Your task to perform on an android device: change the clock display to digital Image 0: 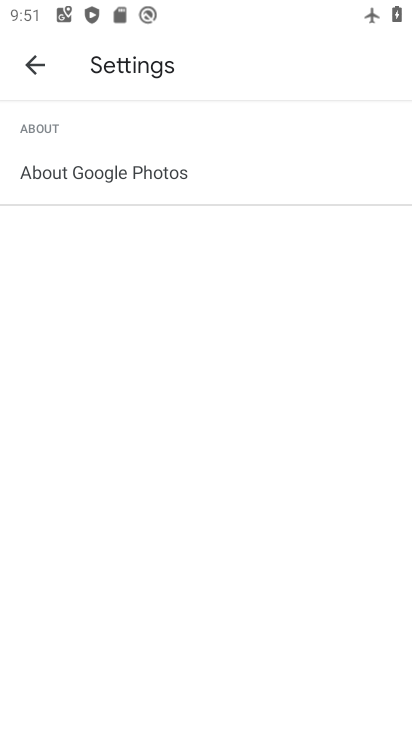
Step 0: press home button
Your task to perform on an android device: change the clock display to digital Image 1: 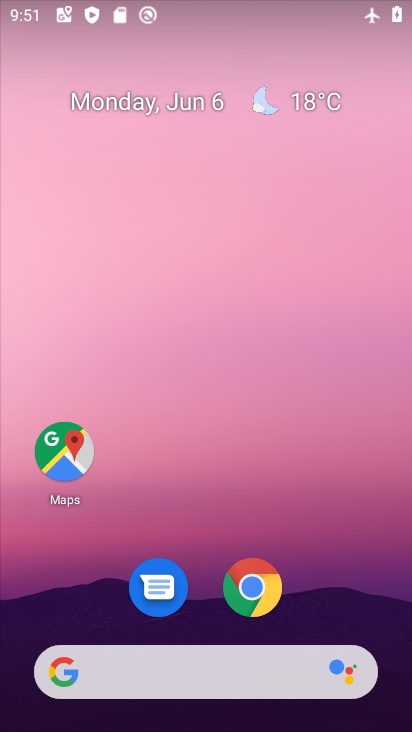
Step 1: drag from (331, 558) to (215, 60)
Your task to perform on an android device: change the clock display to digital Image 2: 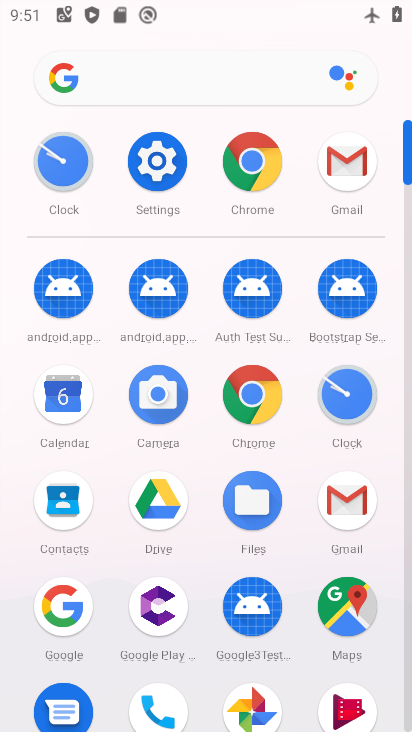
Step 2: click (345, 397)
Your task to perform on an android device: change the clock display to digital Image 3: 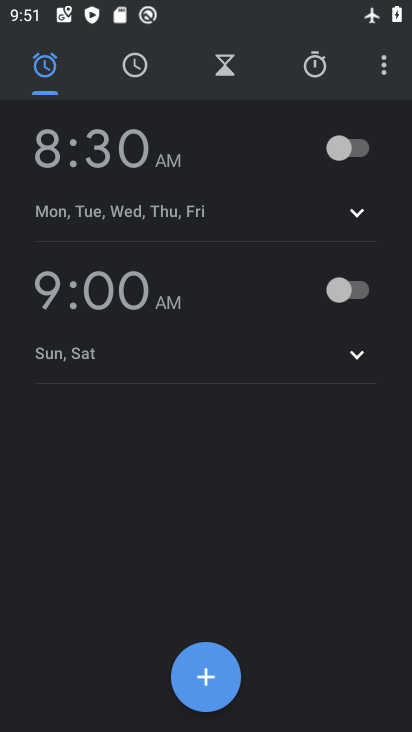
Step 3: click (387, 67)
Your task to perform on an android device: change the clock display to digital Image 4: 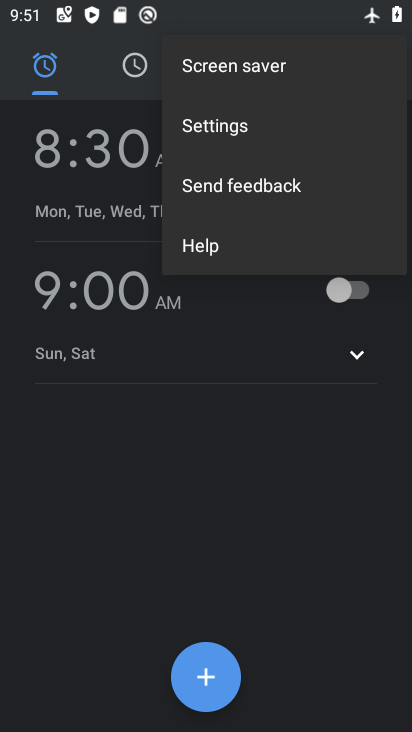
Step 4: click (240, 132)
Your task to perform on an android device: change the clock display to digital Image 5: 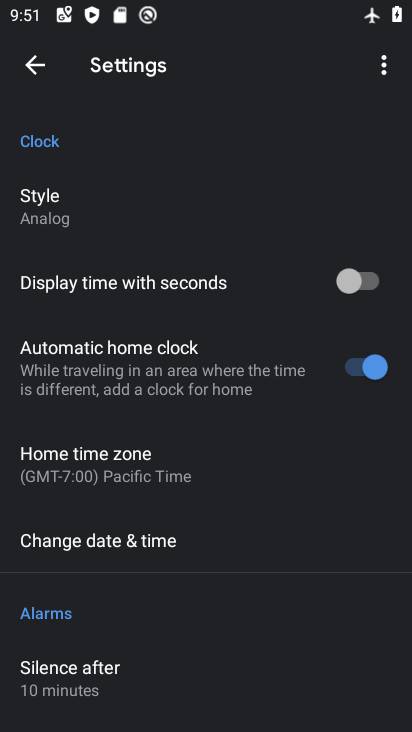
Step 5: click (35, 196)
Your task to perform on an android device: change the clock display to digital Image 6: 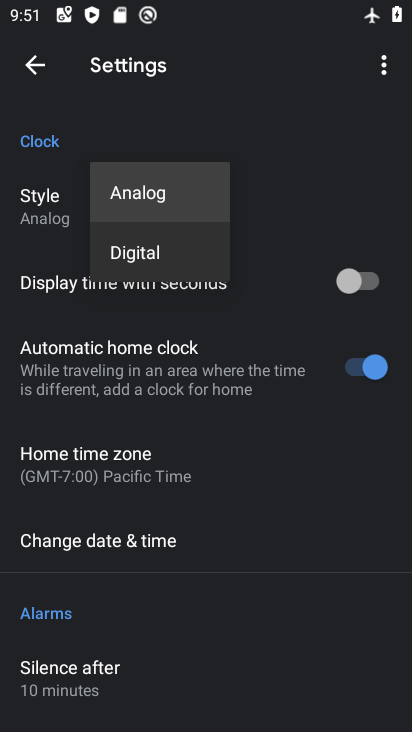
Step 6: click (146, 247)
Your task to perform on an android device: change the clock display to digital Image 7: 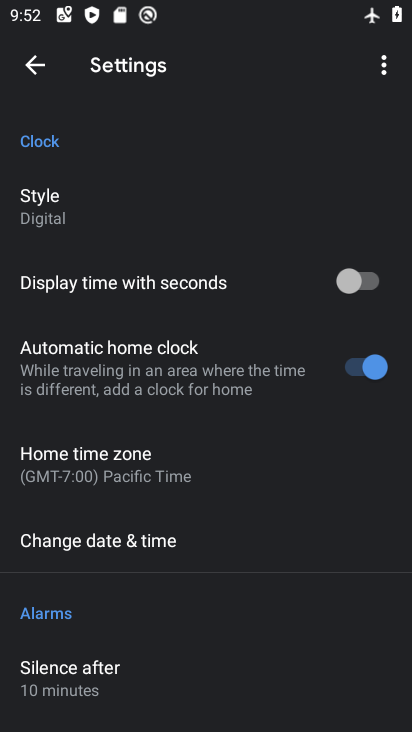
Step 7: task complete